Your task to perform on an android device: Open Amazon Image 0: 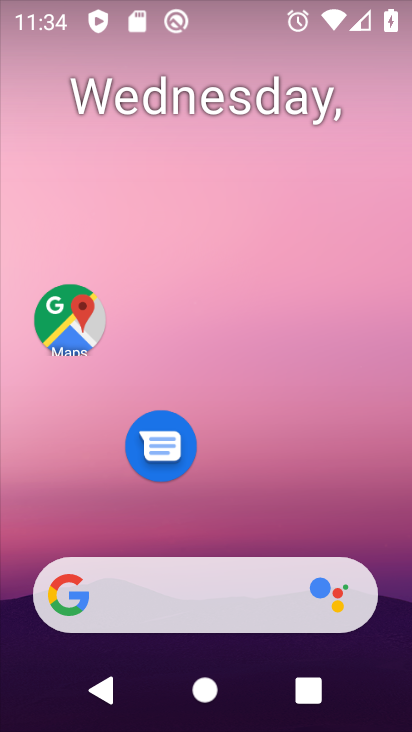
Step 0: drag from (262, 441) to (200, 57)
Your task to perform on an android device: Open Amazon Image 1: 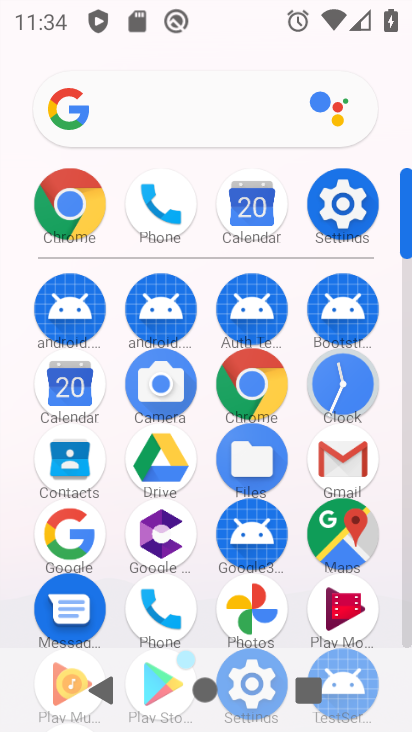
Step 1: click (251, 388)
Your task to perform on an android device: Open Amazon Image 2: 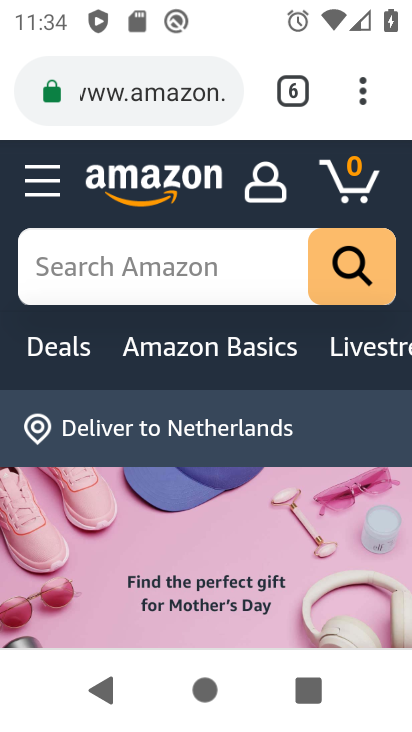
Step 2: task complete